Your task to perform on an android device: Search for sushi restaurants on Maps Image 0: 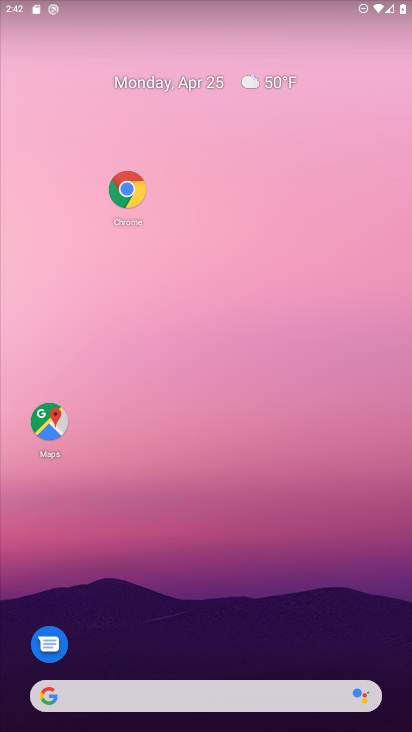
Step 0: click (55, 419)
Your task to perform on an android device: Search for sushi restaurants on Maps Image 1: 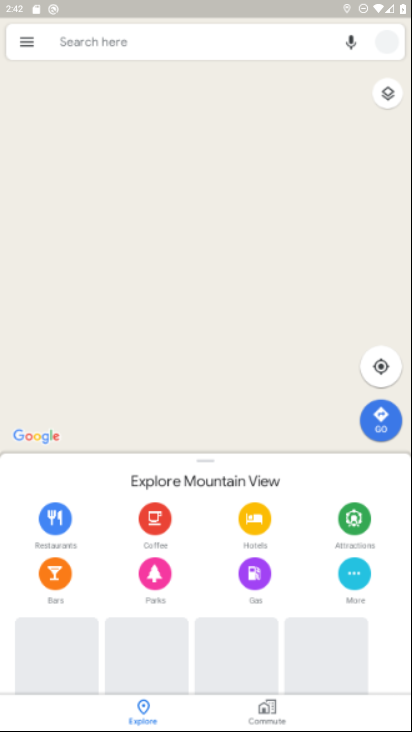
Step 1: click (110, 42)
Your task to perform on an android device: Search for sushi restaurants on Maps Image 2: 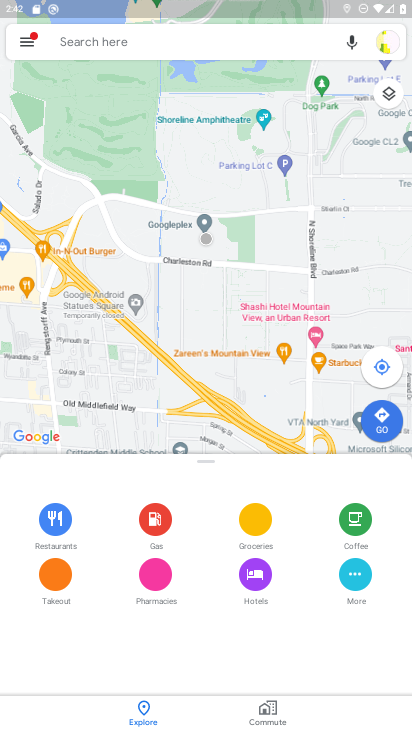
Step 2: click (94, 39)
Your task to perform on an android device: Search for sushi restaurants on Maps Image 3: 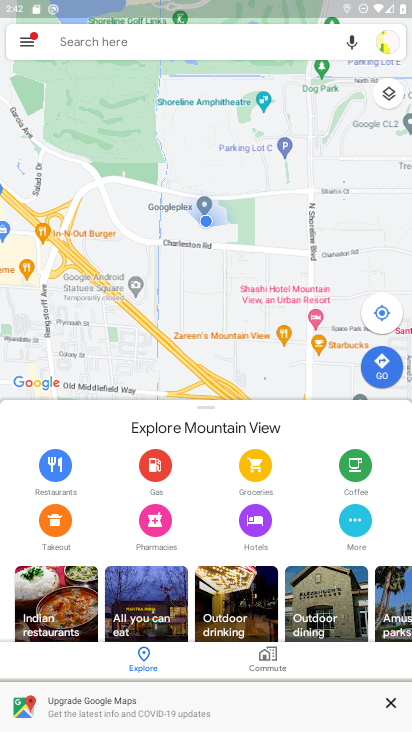
Step 3: click (80, 43)
Your task to perform on an android device: Search for sushi restaurants on Maps Image 4: 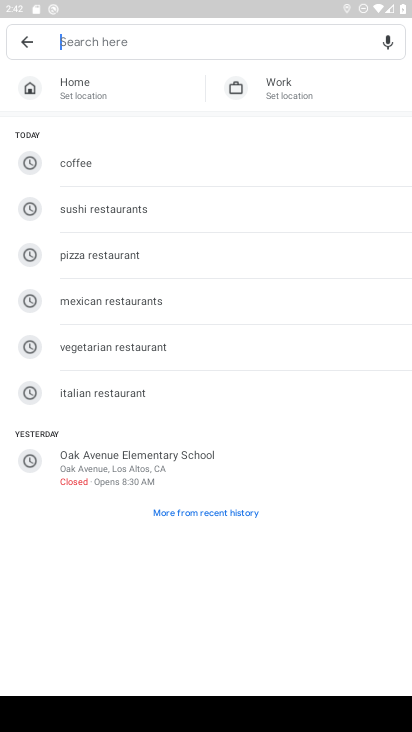
Step 4: type "sushi restaurants"
Your task to perform on an android device: Search for sushi restaurants on Maps Image 5: 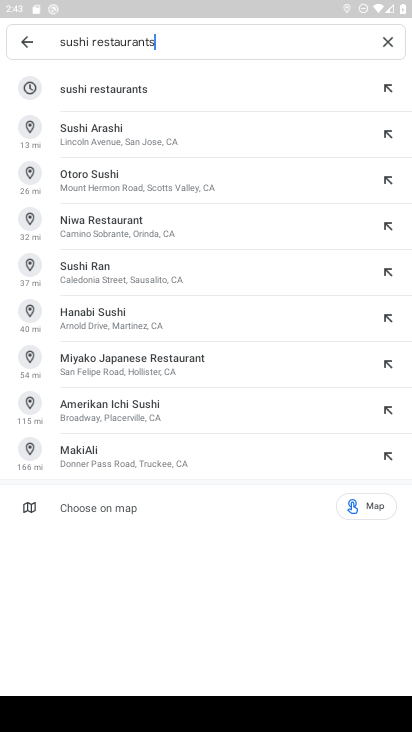
Step 5: click (133, 92)
Your task to perform on an android device: Search for sushi restaurants on Maps Image 6: 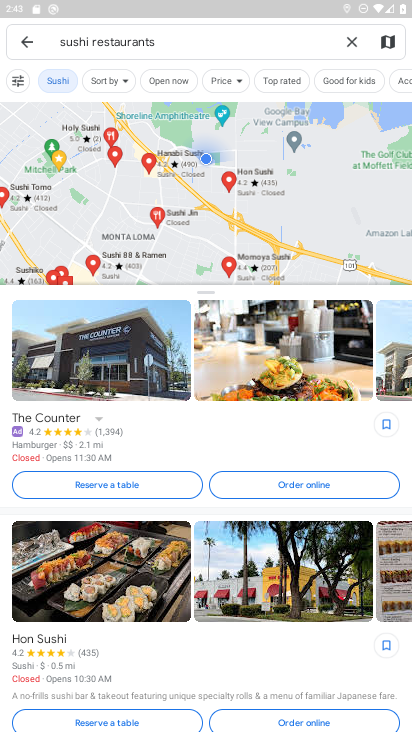
Step 6: task complete